Your task to perform on an android device: change notifications settings Image 0: 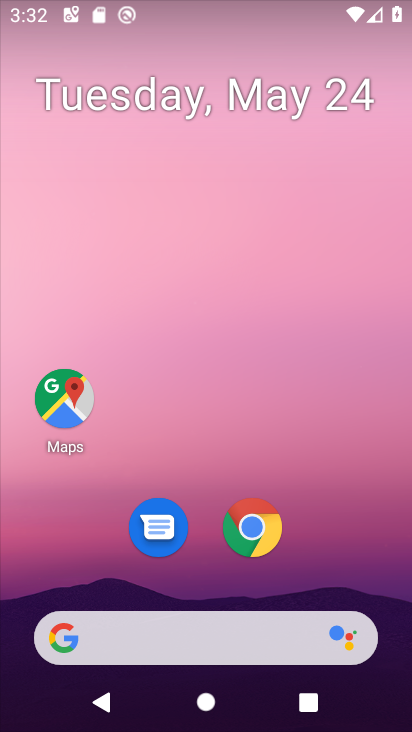
Step 0: drag from (359, 573) to (344, 87)
Your task to perform on an android device: change notifications settings Image 1: 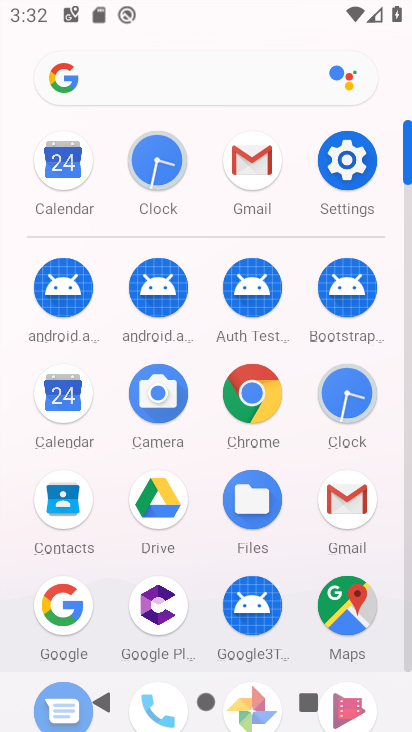
Step 1: click (355, 167)
Your task to perform on an android device: change notifications settings Image 2: 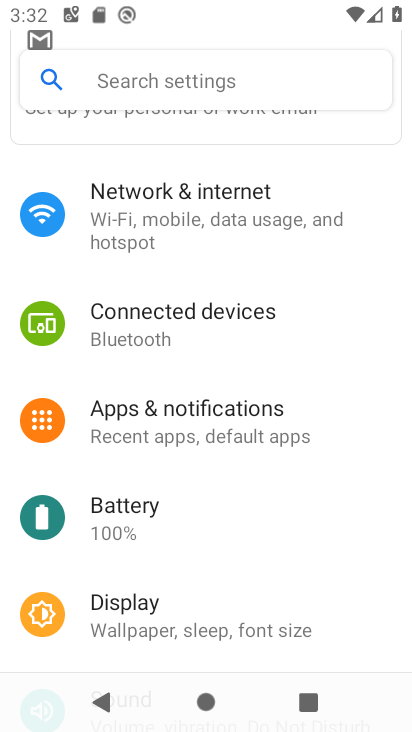
Step 2: click (154, 431)
Your task to perform on an android device: change notifications settings Image 3: 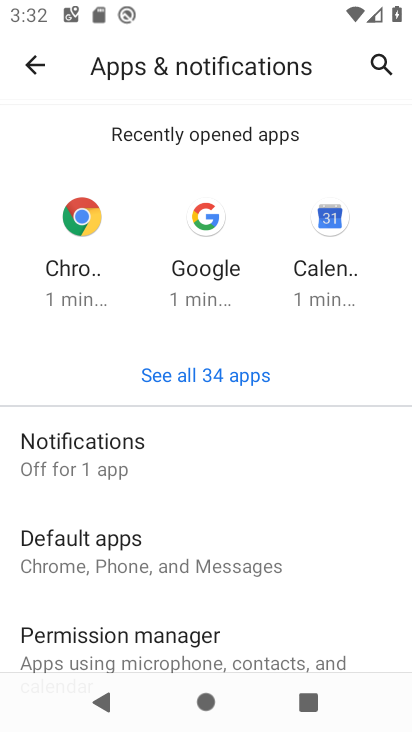
Step 3: click (79, 454)
Your task to perform on an android device: change notifications settings Image 4: 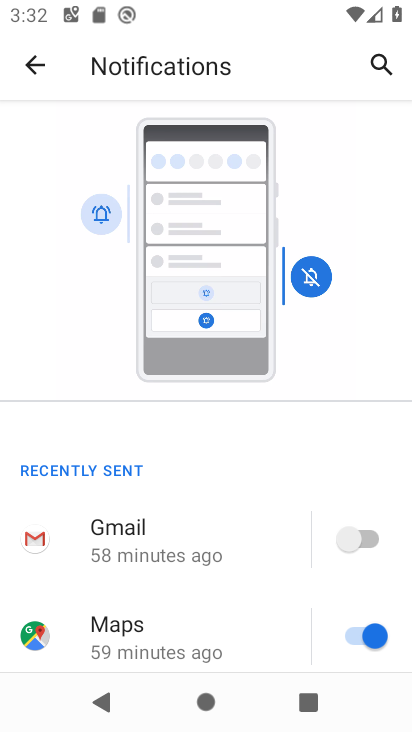
Step 4: drag from (189, 535) to (201, 81)
Your task to perform on an android device: change notifications settings Image 5: 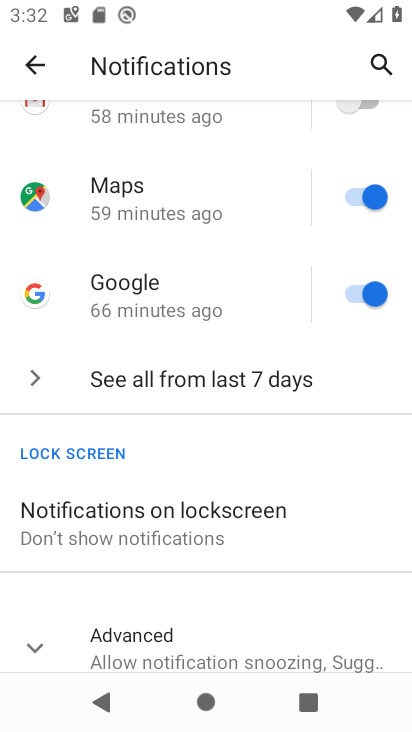
Step 5: click (187, 380)
Your task to perform on an android device: change notifications settings Image 6: 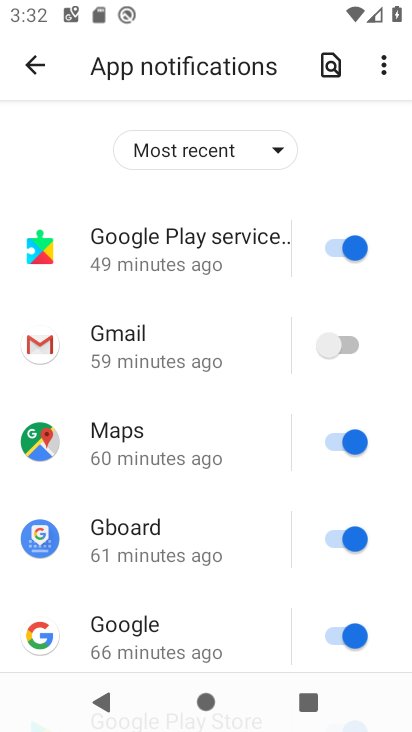
Step 6: click (278, 150)
Your task to perform on an android device: change notifications settings Image 7: 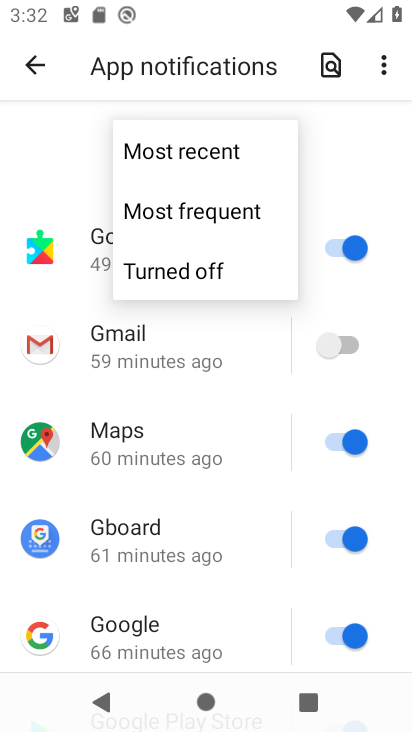
Step 7: click (188, 214)
Your task to perform on an android device: change notifications settings Image 8: 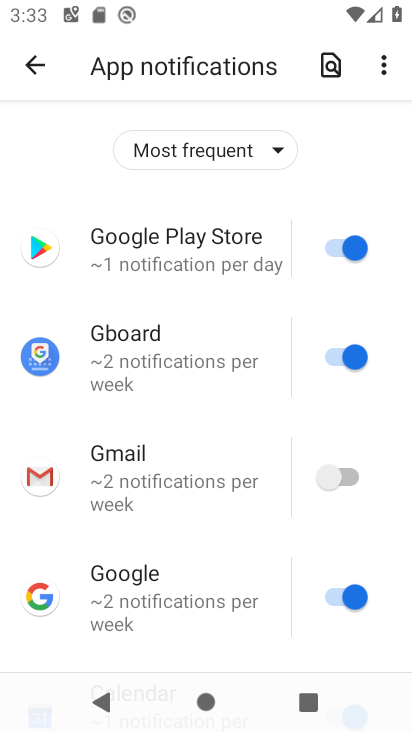
Step 8: task complete